Your task to perform on an android device: Open battery settings Image 0: 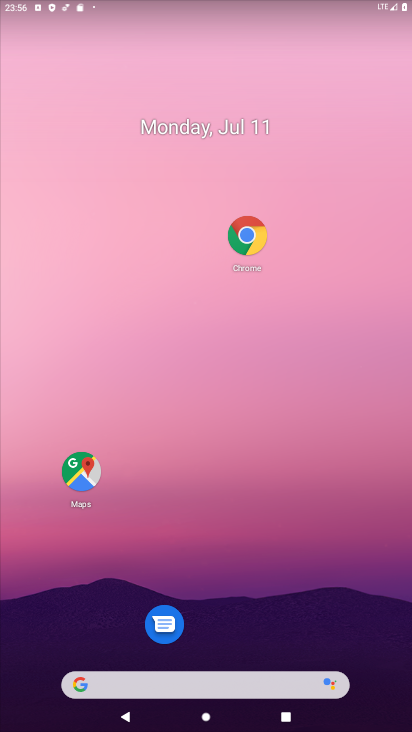
Step 0: drag from (217, 634) to (167, 162)
Your task to perform on an android device: Open battery settings Image 1: 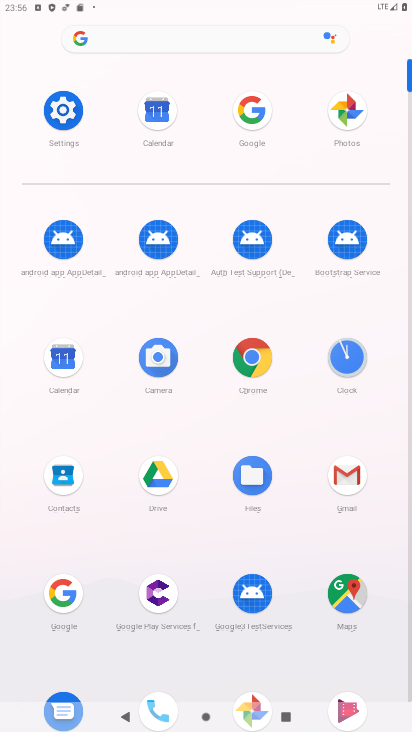
Step 1: click (70, 97)
Your task to perform on an android device: Open battery settings Image 2: 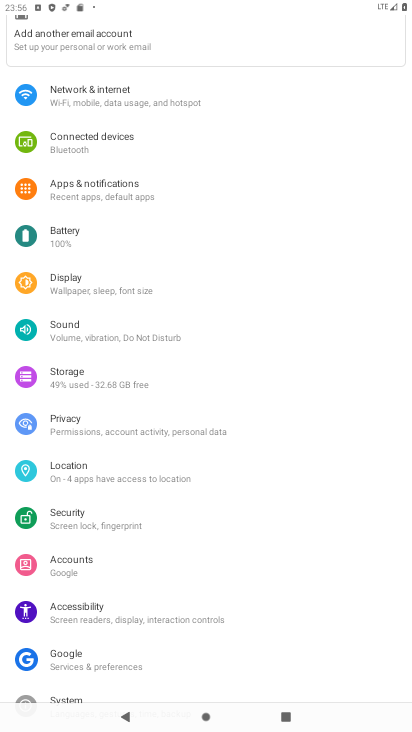
Step 2: click (93, 239)
Your task to perform on an android device: Open battery settings Image 3: 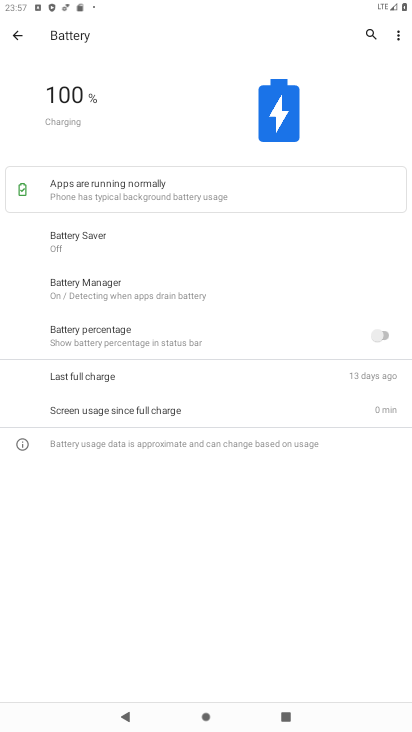
Step 3: task complete